Your task to perform on an android device: Search for the best burger restaurants on Maps Image 0: 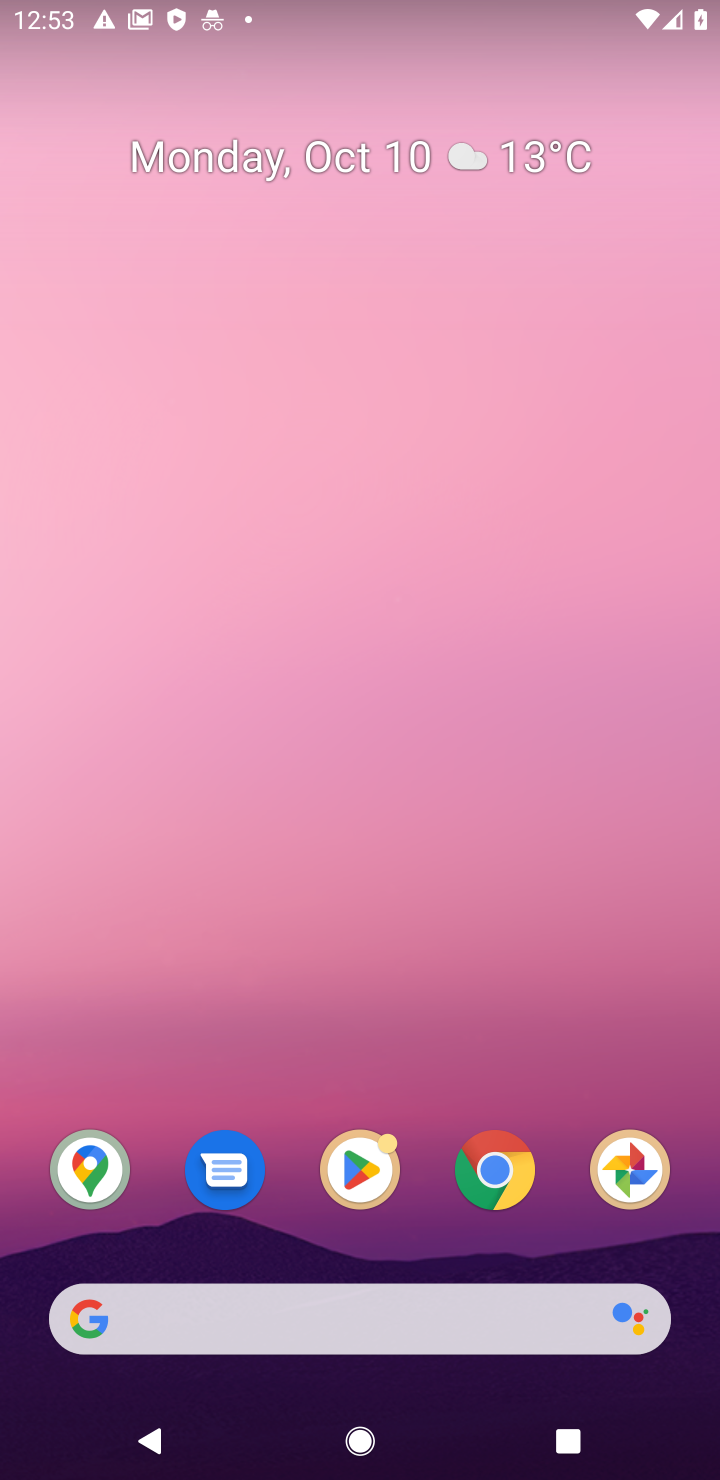
Step 0: click (89, 1163)
Your task to perform on an android device: Search for the best burger restaurants on Maps Image 1: 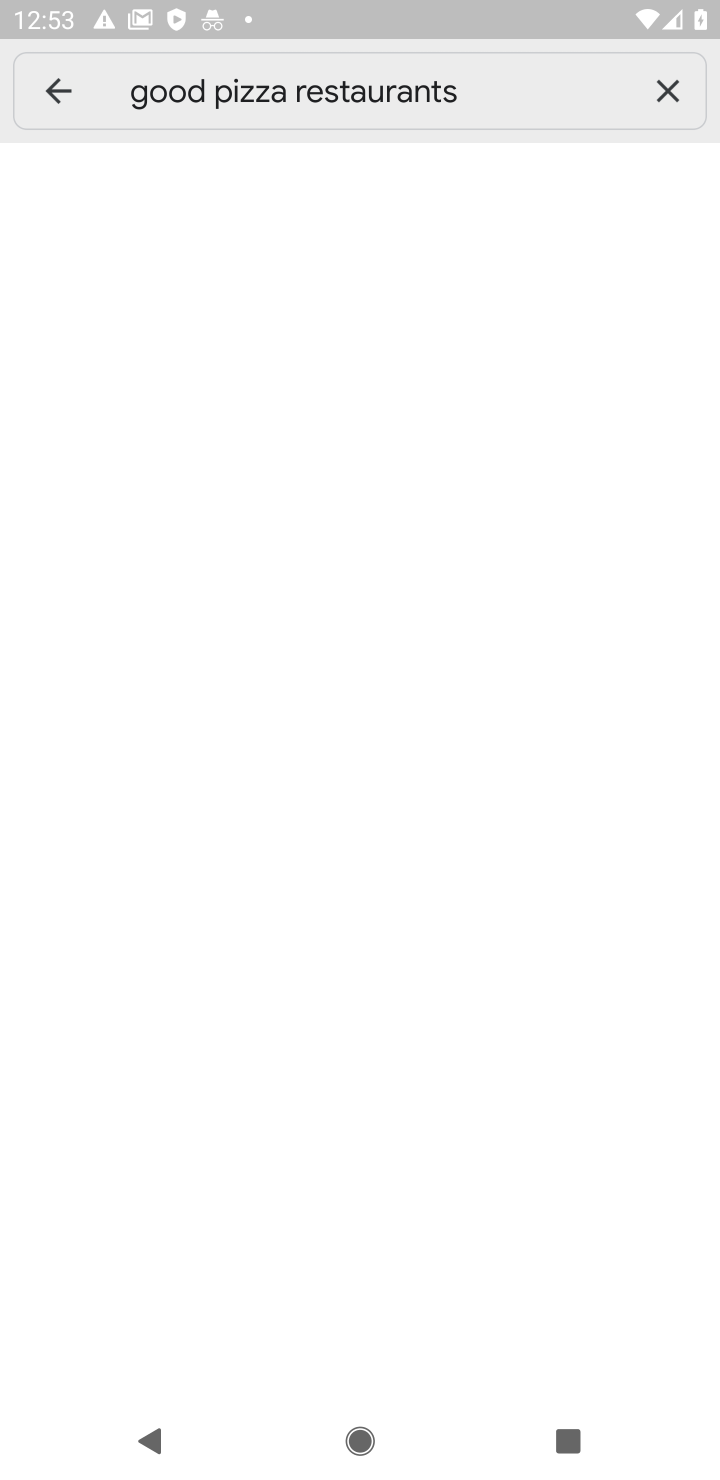
Step 1: click (660, 84)
Your task to perform on an android device: Search for the best burger restaurants on Maps Image 2: 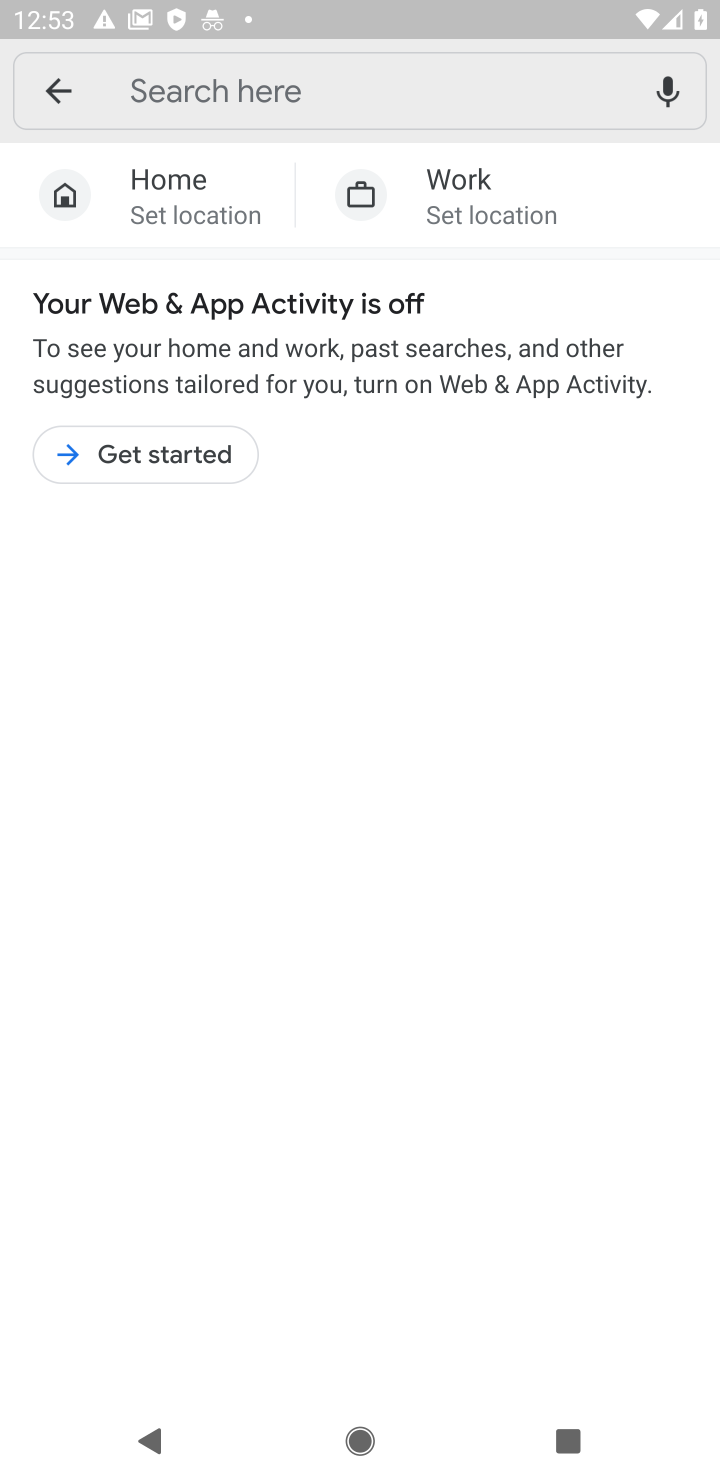
Step 2: click (158, 197)
Your task to perform on an android device: Search for the best burger restaurants on Maps Image 3: 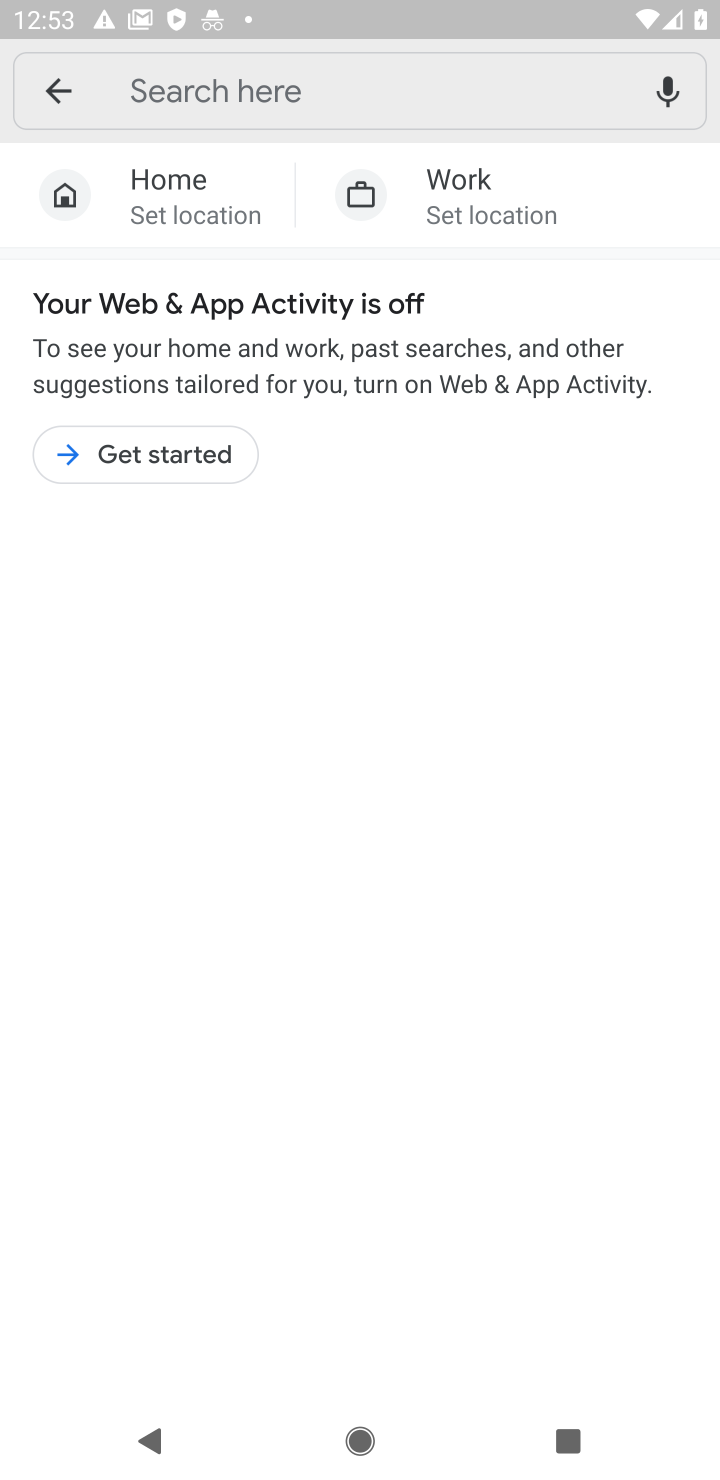
Step 3: press back button
Your task to perform on an android device: Search for the best burger restaurants on Maps Image 4: 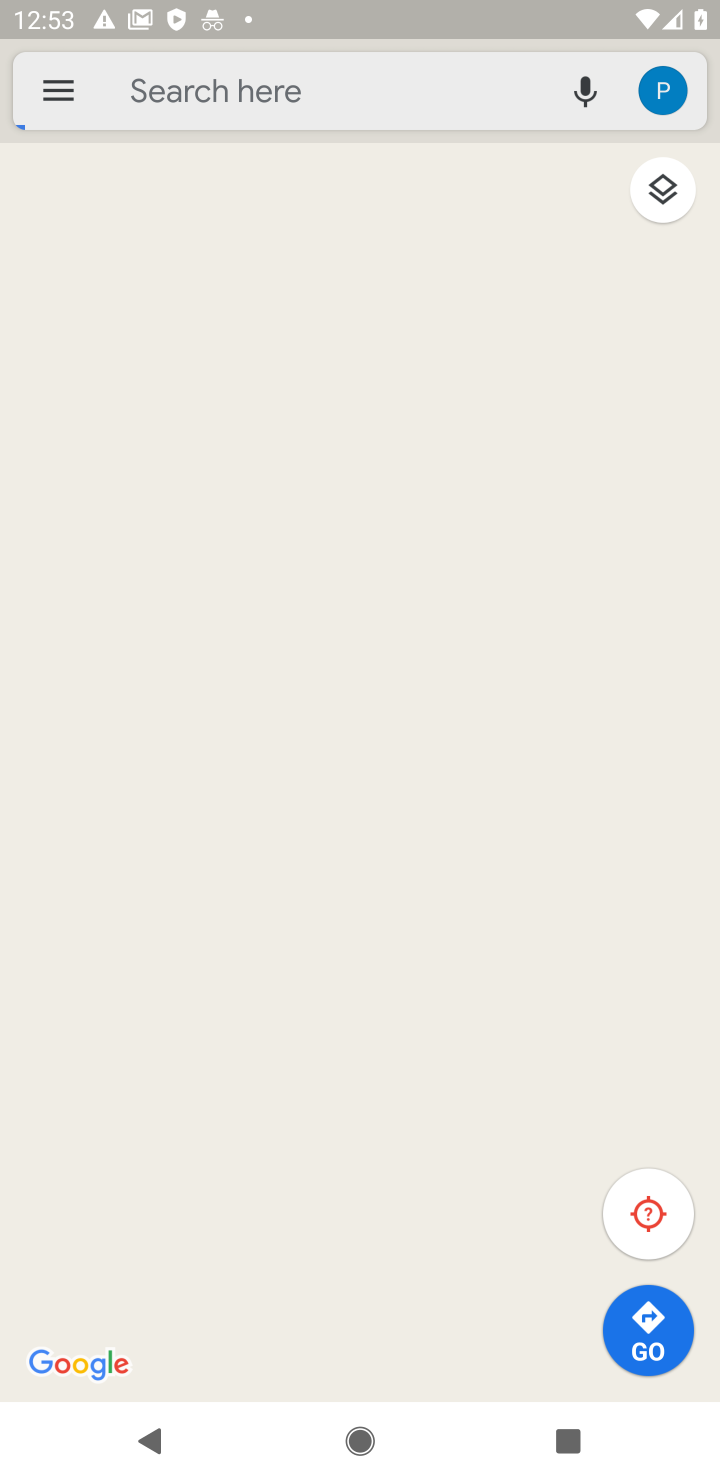
Step 4: click (383, 87)
Your task to perform on an android device: Search for the best burger restaurants on Maps Image 5: 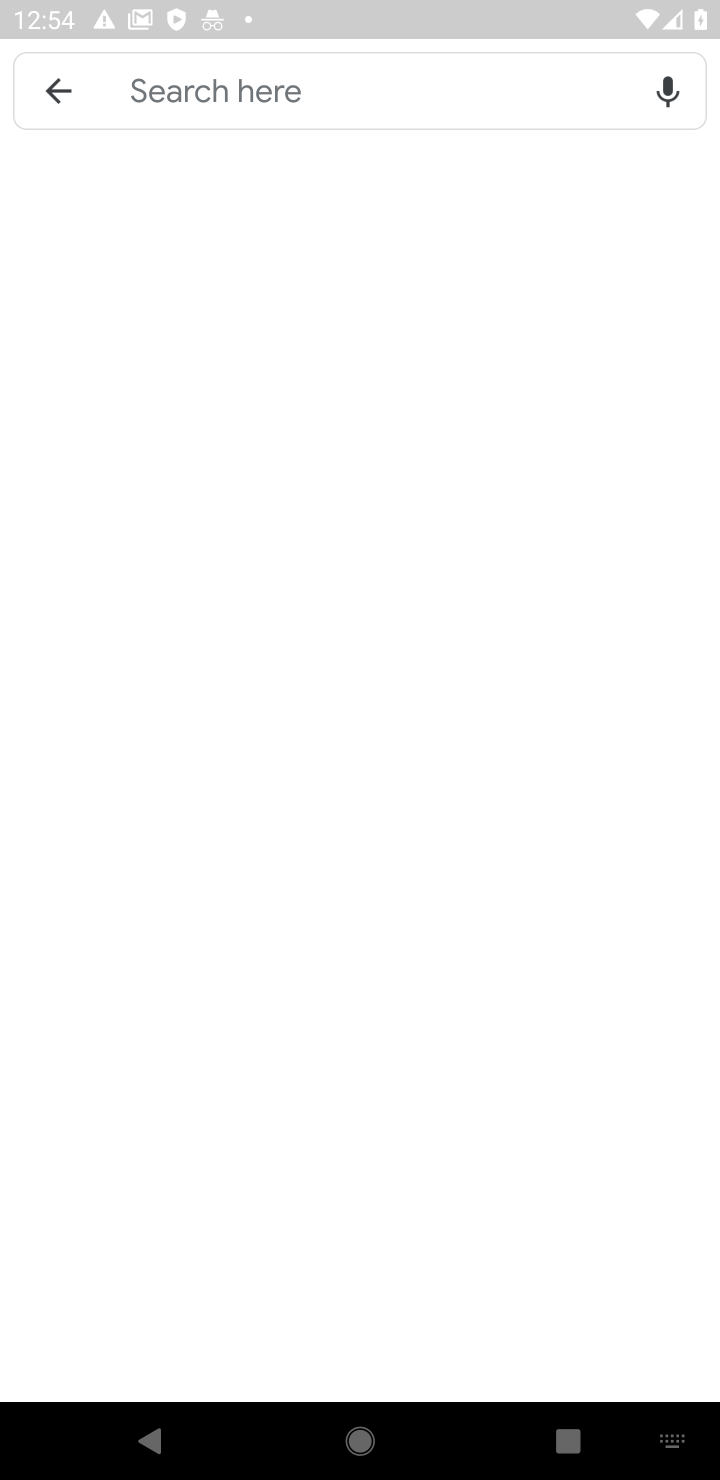
Step 5: type "best burger restaurants"
Your task to perform on an android device: Search for the best burger restaurants on Maps Image 6: 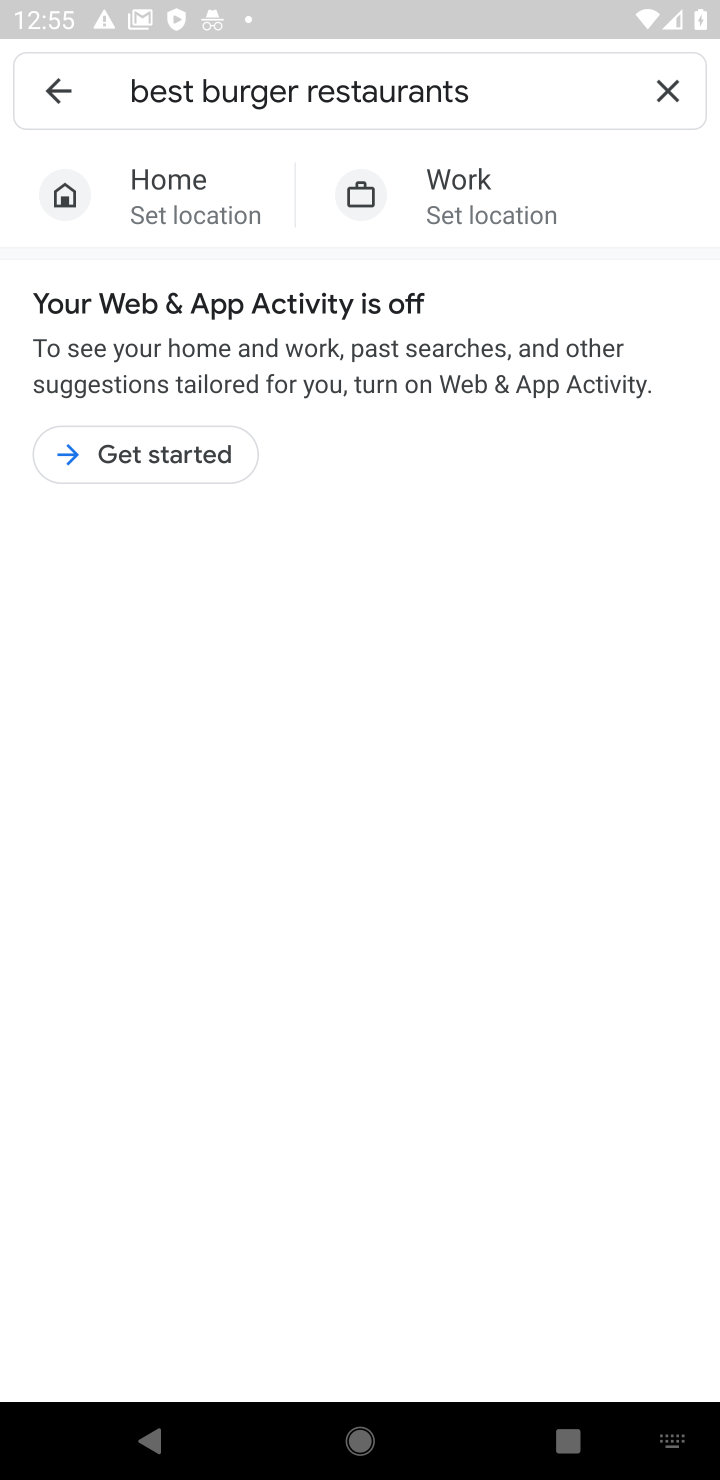
Step 6: task complete